Your task to perform on an android device: check data usage Image 0: 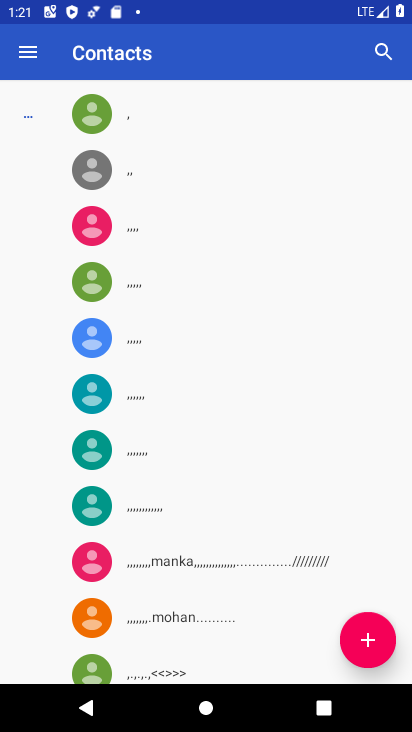
Step 0: press home button
Your task to perform on an android device: check data usage Image 1: 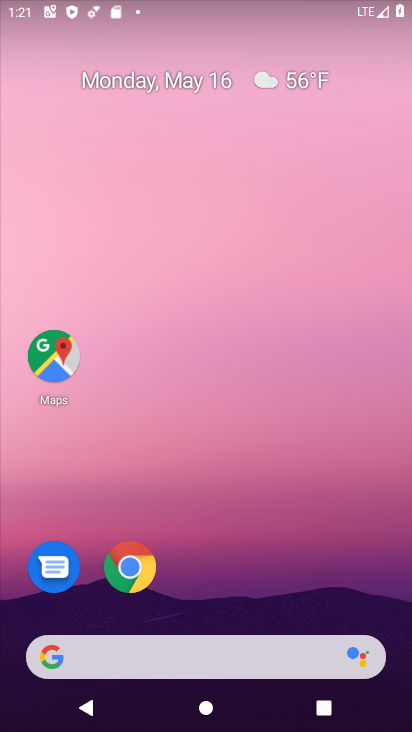
Step 1: drag from (207, 608) to (260, 169)
Your task to perform on an android device: check data usage Image 2: 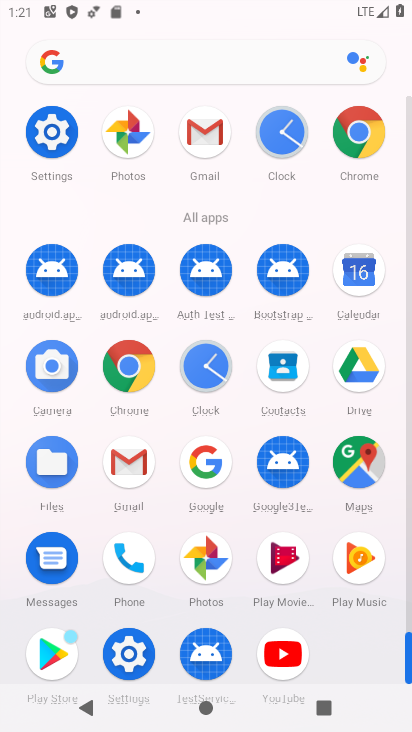
Step 2: click (128, 647)
Your task to perform on an android device: check data usage Image 3: 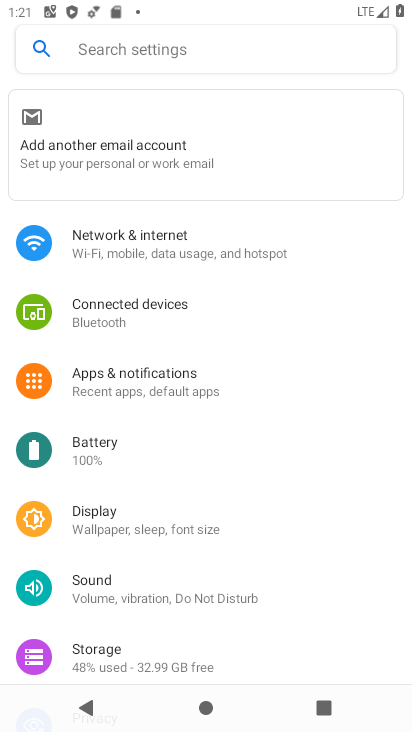
Step 3: click (208, 240)
Your task to perform on an android device: check data usage Image 4: 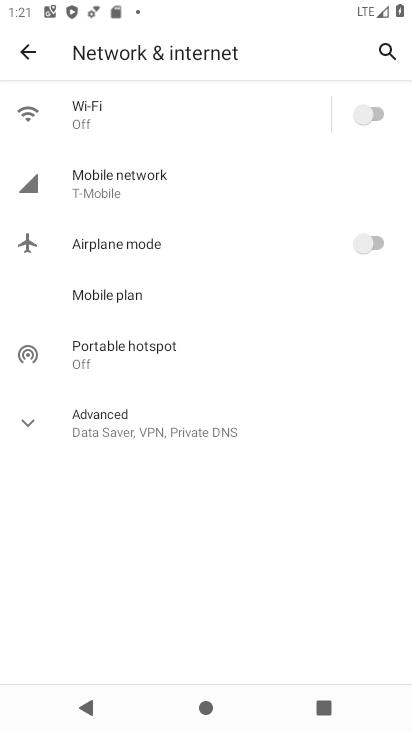
Step 4: click (174, 193)
Your task to perform on an android device: check data usage Image 5: 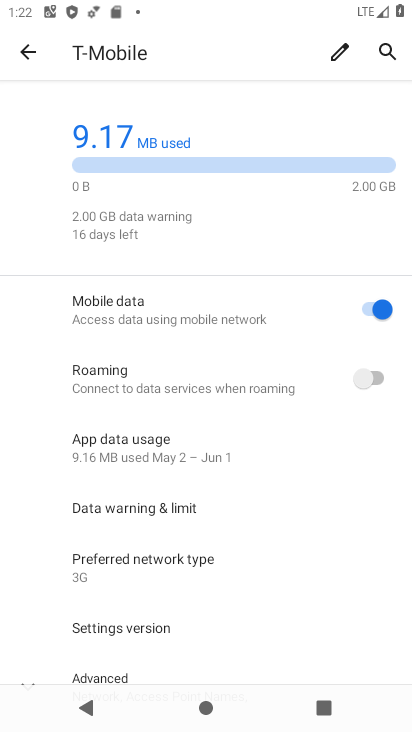
Step 5: click (211, 475)
Your task to perform on an android device: check data usage Image 6: 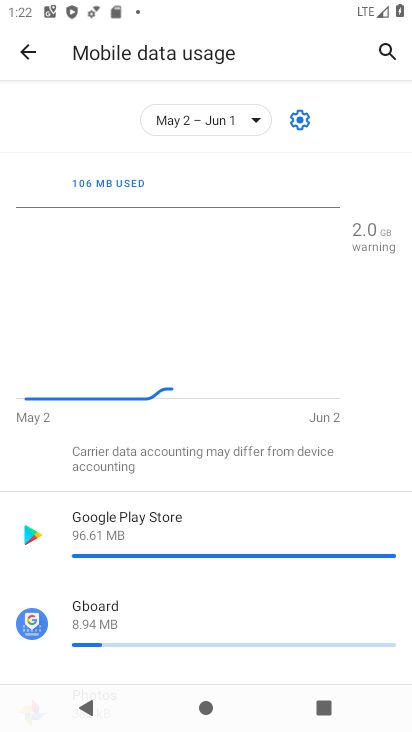
Step 6: task complete